Your task to perform on an android device: Do I have any events today? Image 0: 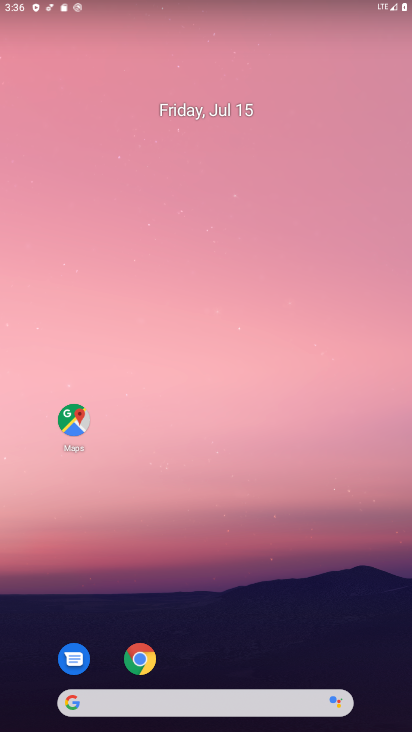
Step 0: click (189, 222)
Your task to perform on an android device: Do I have any events today? Image 1: 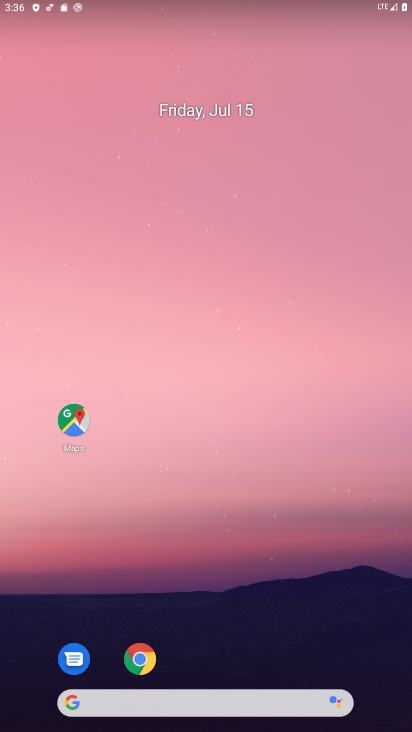
Step 1: drag from (206, 490) to (188, 168)
Your task to perform on an android device: Do I have any events today? Image 2: 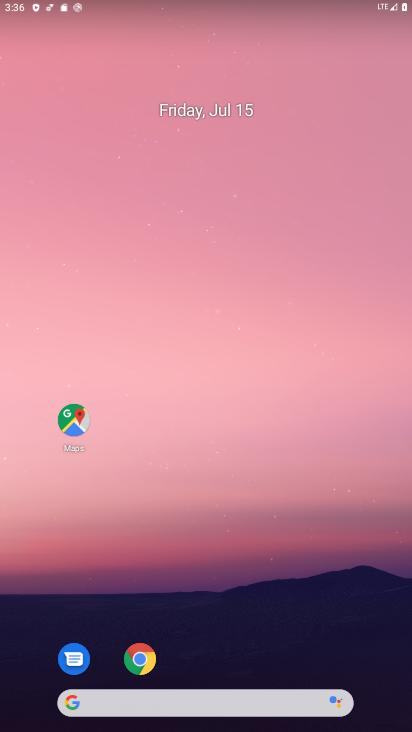
Step 2: drag from (186, 661) to (212, 265)
Your task to perform on an android device: Do I have any events today? Image 3: 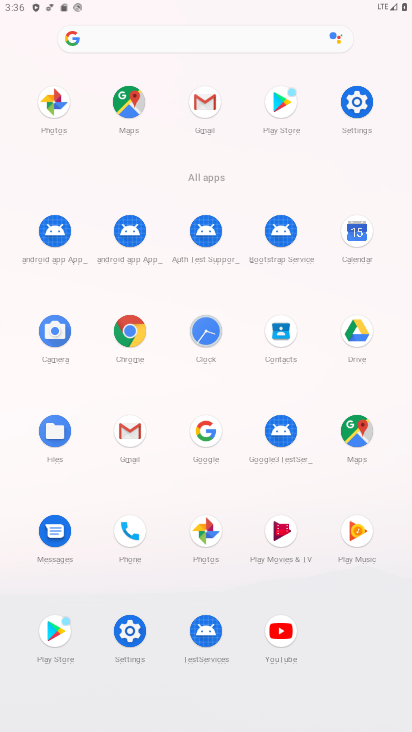
Step 3: click (361, 230)
Your task to perform on an android device: Do I have any events today? Image 4: 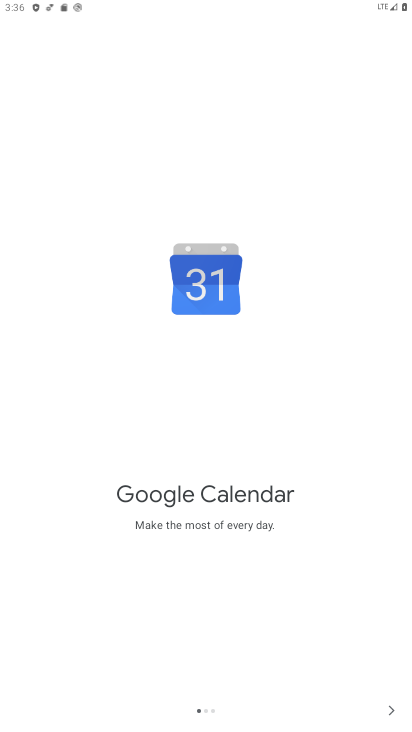
Step 4: click (386, 712)
Your task to perform on an android device: Do I have any events today? Image 5: 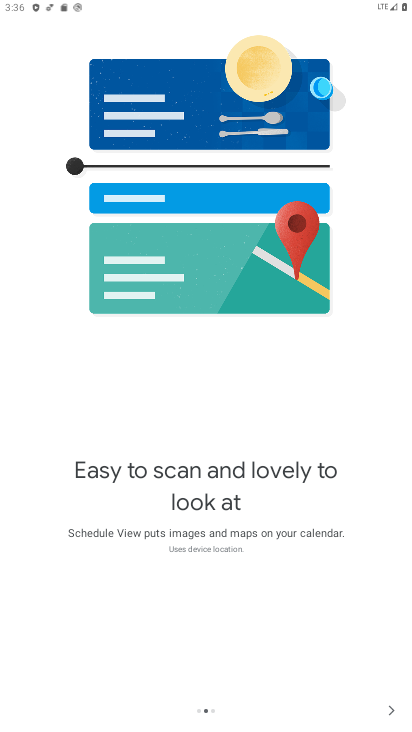
Step 5: click (386, 712)
Your task to perform on an android device: Do I have any events today? Image 6: 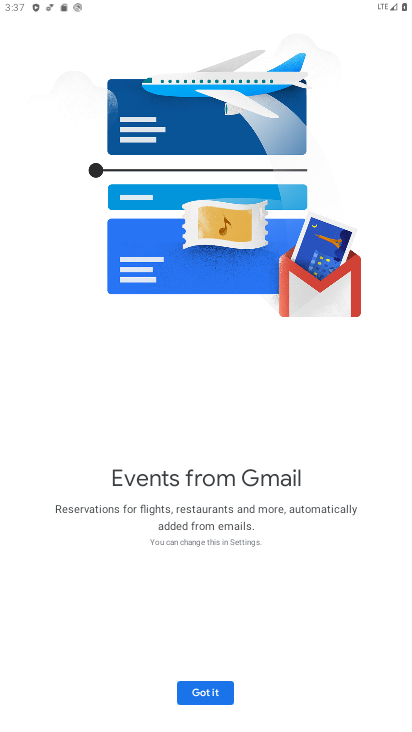
Step 6: click (198, 692)
Your task to perform on an android device: Do I have any events today? Image 7: 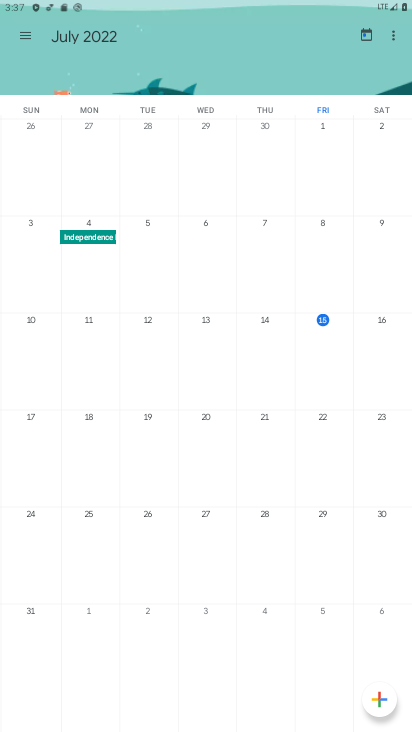
Step 7: task complete